Your task to perform on an android device: clear history in the chrome app Image 0: 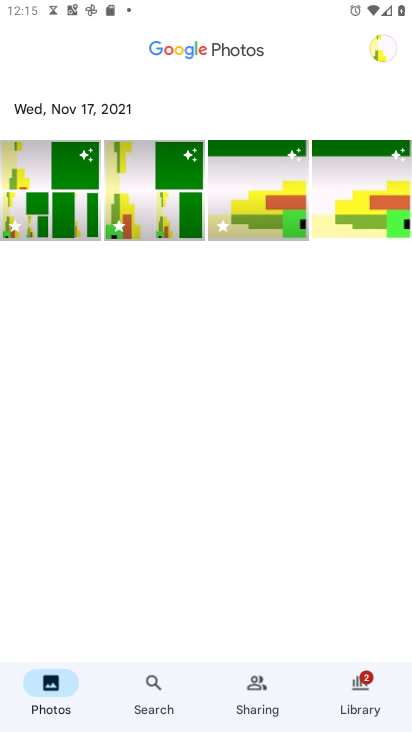
Step 0: press home button
Your task to perform on an android device: clear history in the chrome app Image 1: 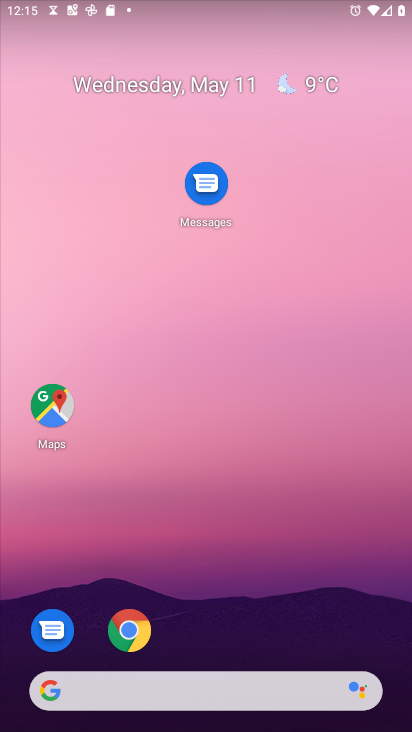
Step 1: click (407, 397)
Your task to perform on an android device: clear history in the chrome app Image 2: 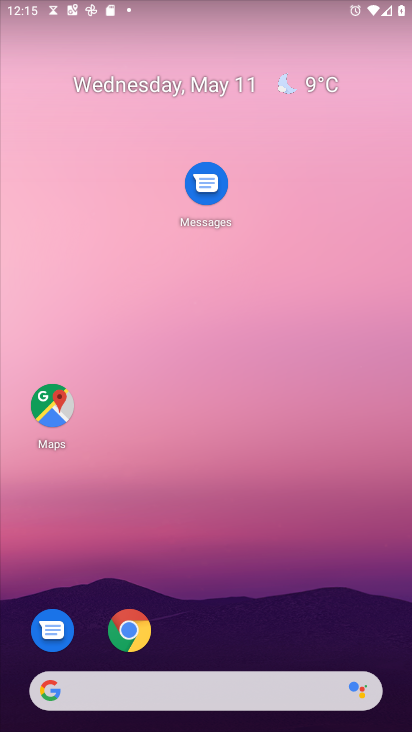
Step 2: click (130, 624)
Your task to perform on an android device: clear history in the chrome app Image 3: 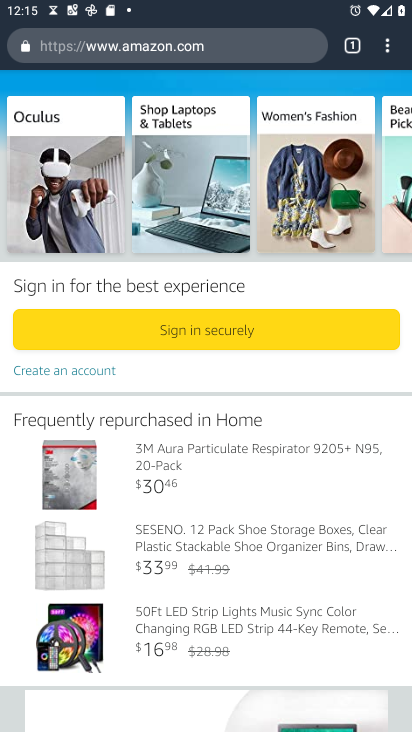
Step 3: click (385, 45)
Your task to perform on an android device: clear history in the chrome app Image 4: 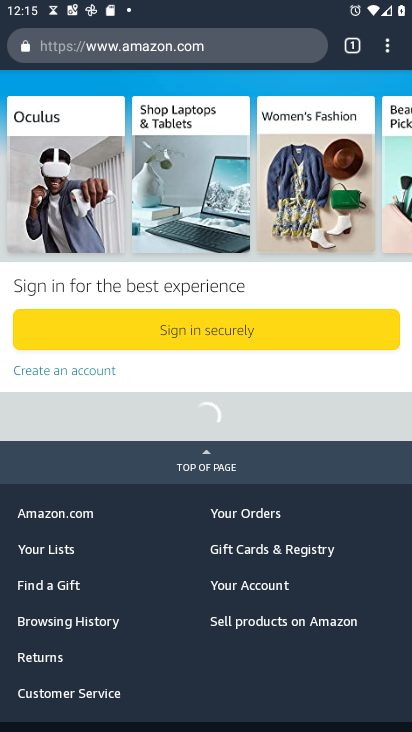
Step 4: click (384, 37)
Your task to perform on an android device: clear history in the chrome app Image 5: 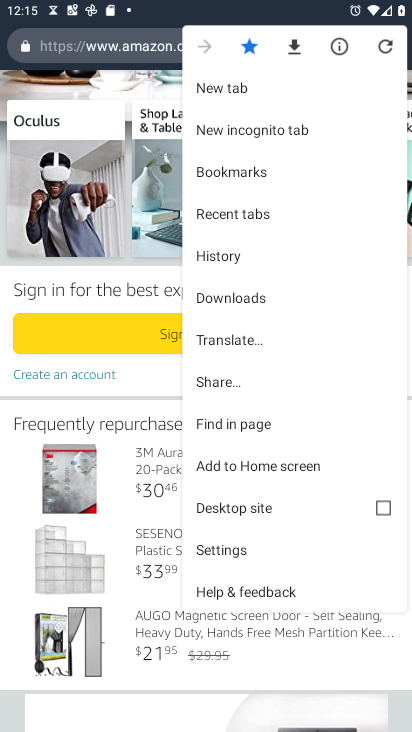
Step 5: click (234, 560)
Your task to perform on an android device: clear history in the chrome app Image 6: 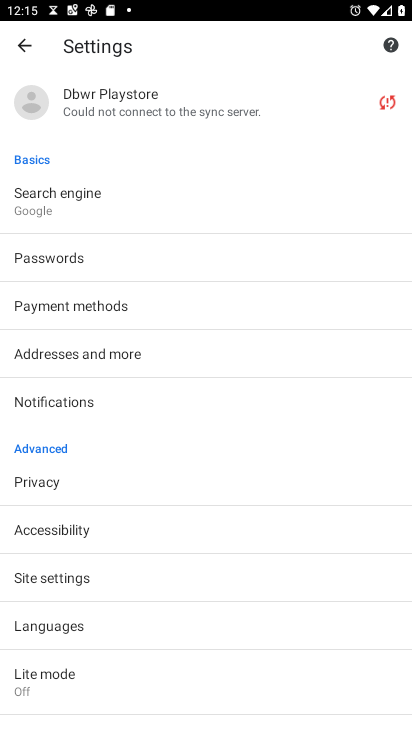
Step 6: drag from (83, 633) to (143, 175)
Your task to perform on an android device: clear history in the chrome app Image 7: 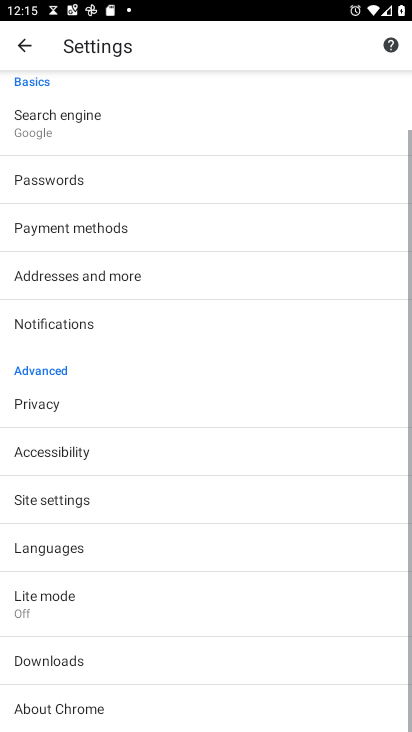
Step 7: drag from (182, 541) to (285, 145)
Your task to perform on an android device: clear history in the chrome app Image 8: 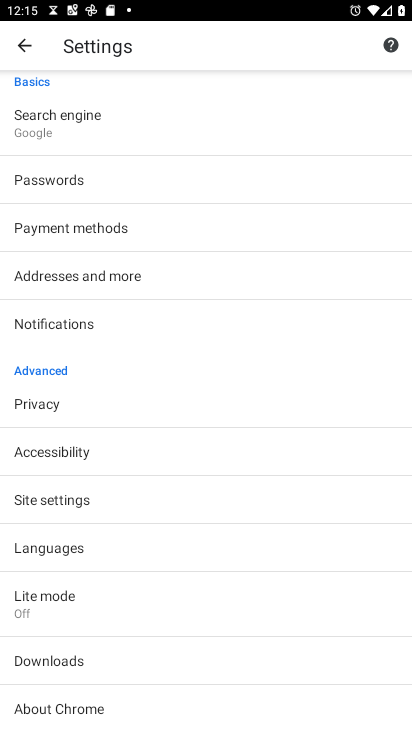
Step 8: click (165, 491)
Your task to perform on an android device: clear history in the chrome app Image 9: 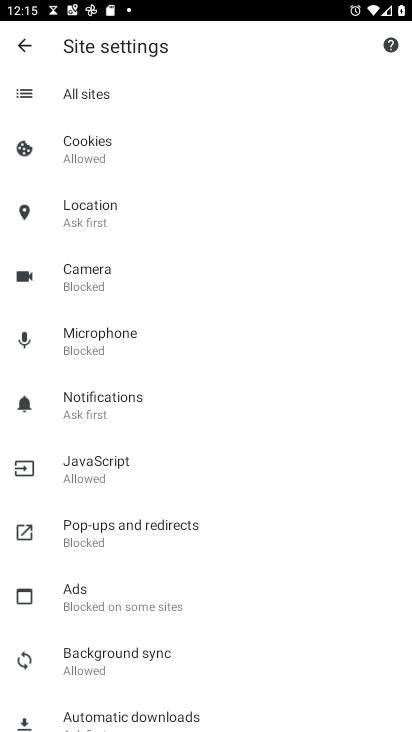
Step 9: drag from (191, 621) to (214, 111)
Your task to perform on an android device: clear history in the chrome app Image 10: 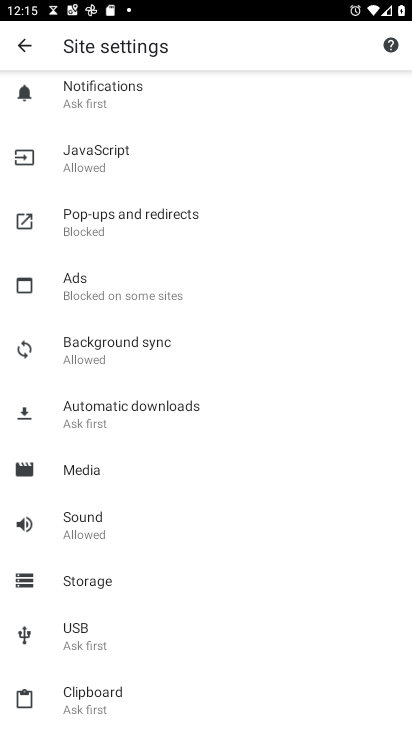
Step 10: drag from (168, 575) to (209, 78)
Your task to perform on an android device: clear history in the chrome app Image 11: 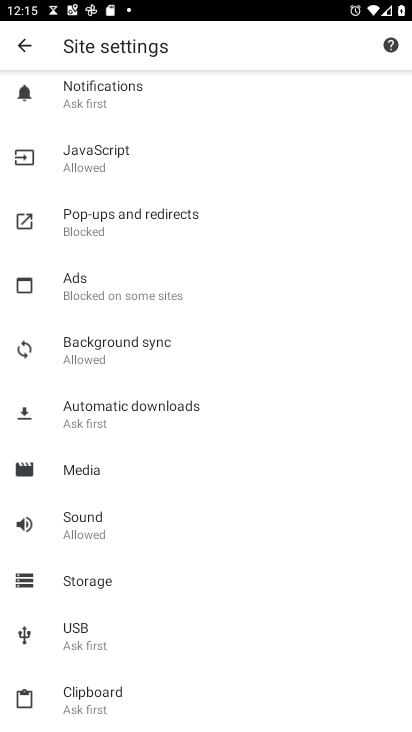
Step 11: click (16, 40)
Your task to perform on an android device: clear history in the chrome app Image 12: 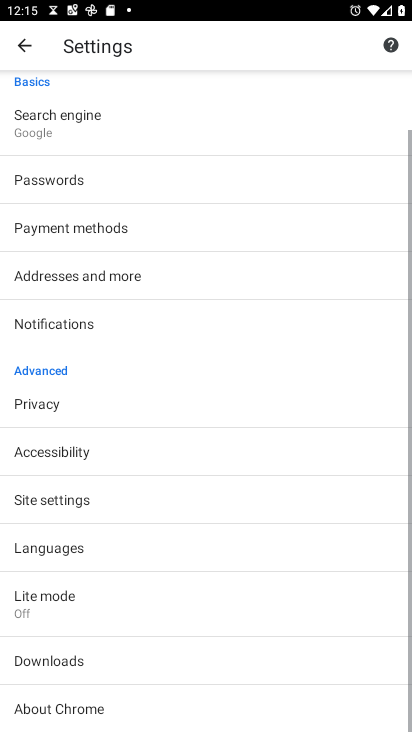
Step 12: click (16, 40)
Your task to perform on an android device: clear history in the chrome app Image 13: 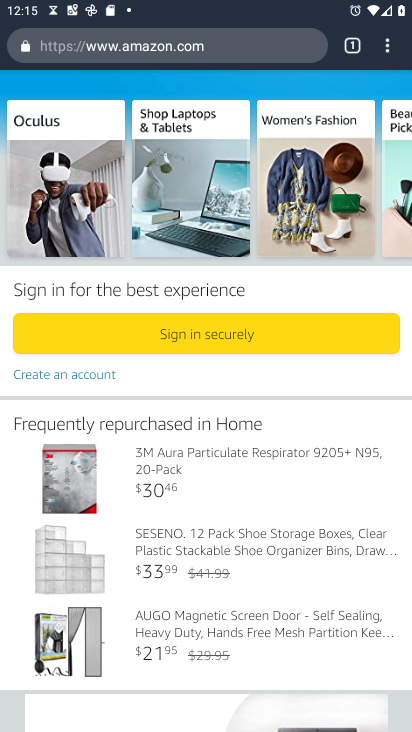
Step 13: click (380, 46)
Your task to perform on an android device: clear history in the chrome app Image 14: 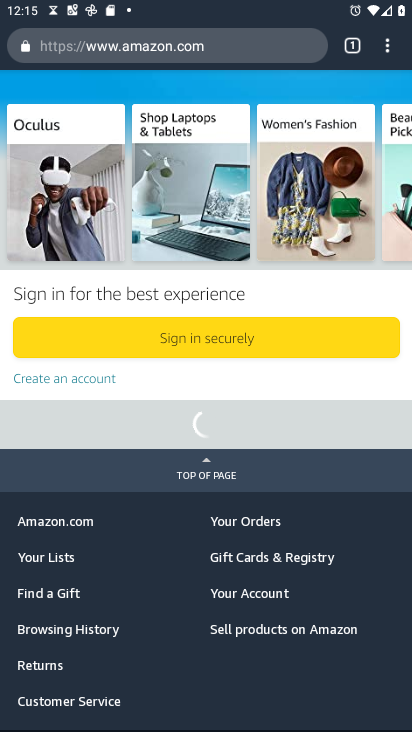
Step 14: task complete